Your task to perform on an android device: Open the stopwatch Image 0: 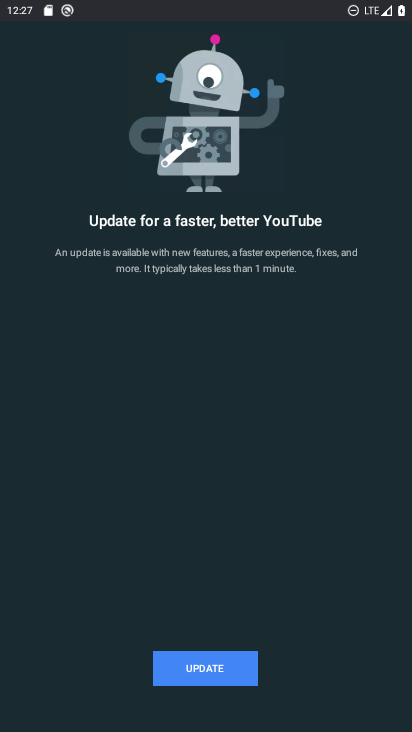
Step 0: press home button
Your task to perform on an android device: Open the stopwatch Image 1: 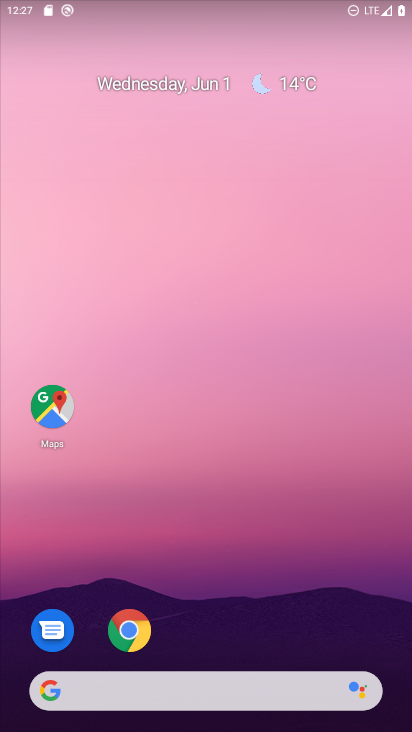
Step 1: drag from (322, 552) to (273, 79)
Your task to perform on an android device: Open the stopwatch Image 2: 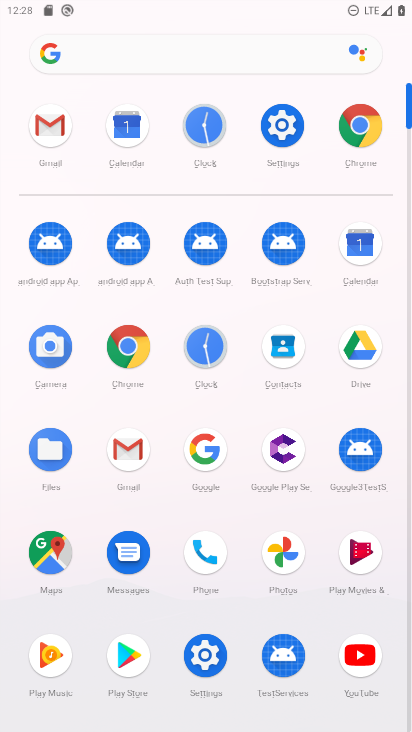
Step 2: click (196, 130)
Your task to perform on an android device: Open the stopwatch Image 3: 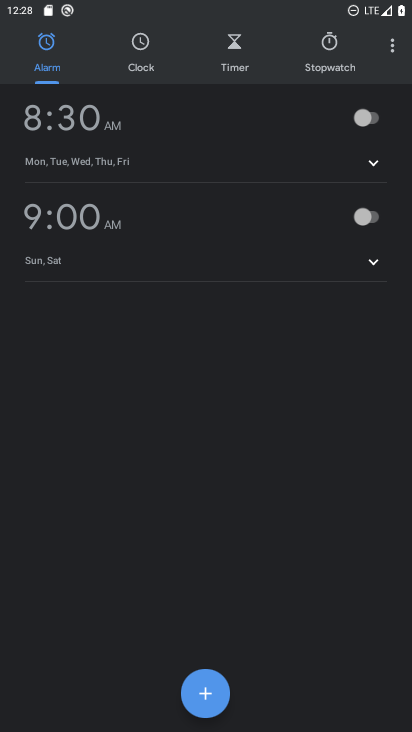
Step 3: click (340, 62)
Your task to perform on an android device: Open the stopwatch Image 4: 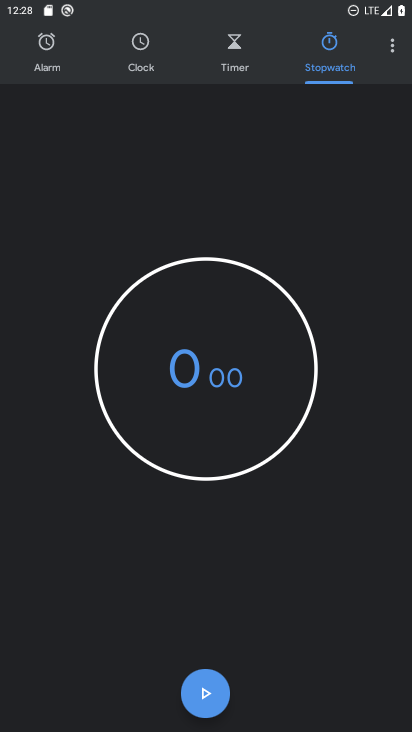
Step 4: task complete